Your task to perform on an android device: Go to Android settings Image 0: 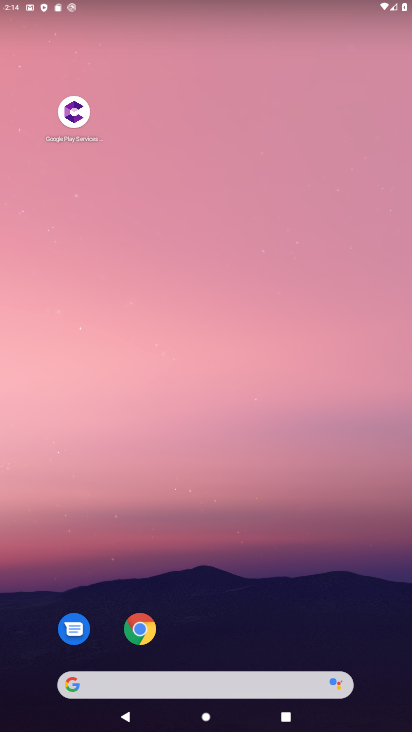
Step 0: drag from (201, 677) to (190, 115)
Your task to perform on an android device: Go to Android settings Image 1: 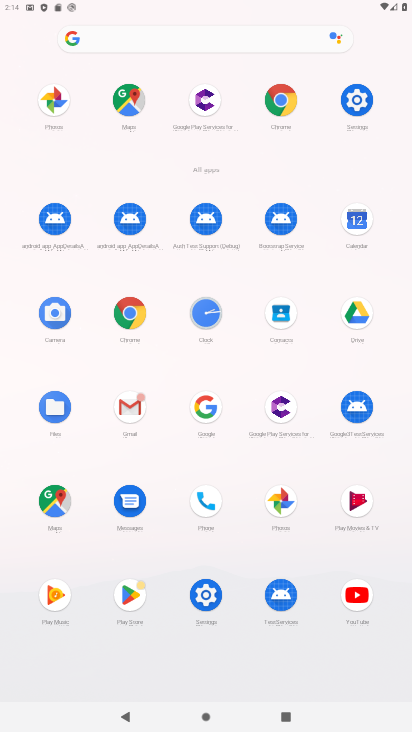
Step 1: click (355, 102)
Your task to perform on an android device: Go to Android settings Image 2: 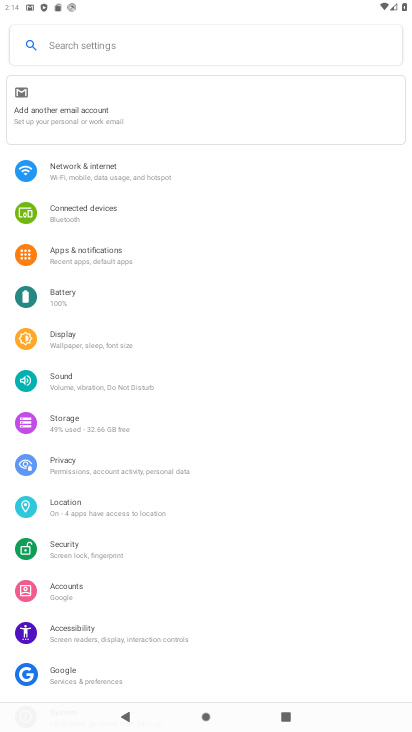
Step 2: task complete